Your task to perform on an android device: turn notification dots on Image 0: 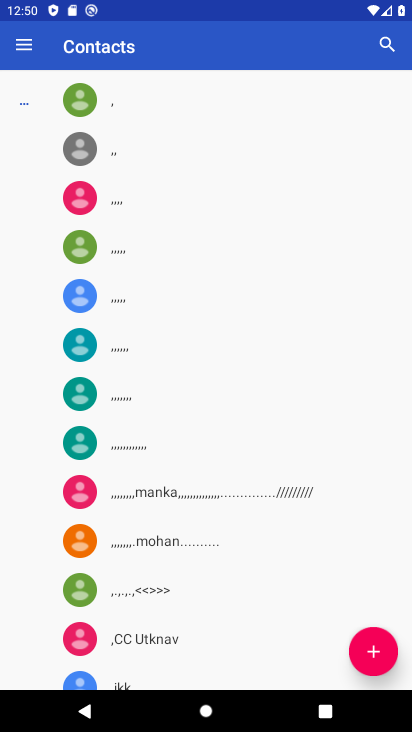
Step 0: press home button
Your task to perform on an android device: turn notification dots on Image 1: 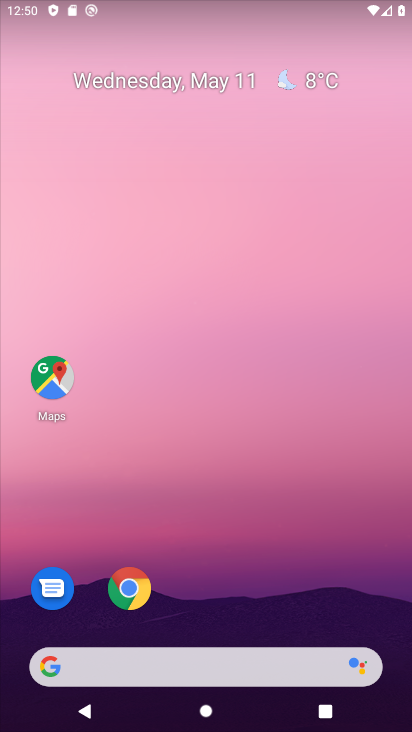
Step 1: drag from (248, 574) to (286, 223)
Your task to perform on an android device: turn notification dots on Image 2: 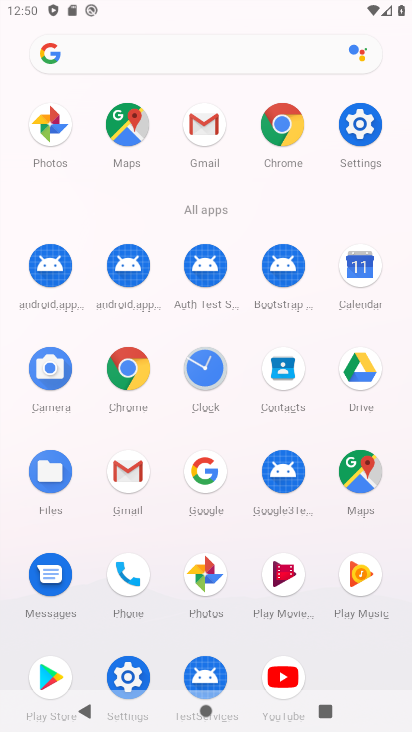
Step 2: click (358, 143)
Your task to perform on an android device: turn notification dots on Image 3: 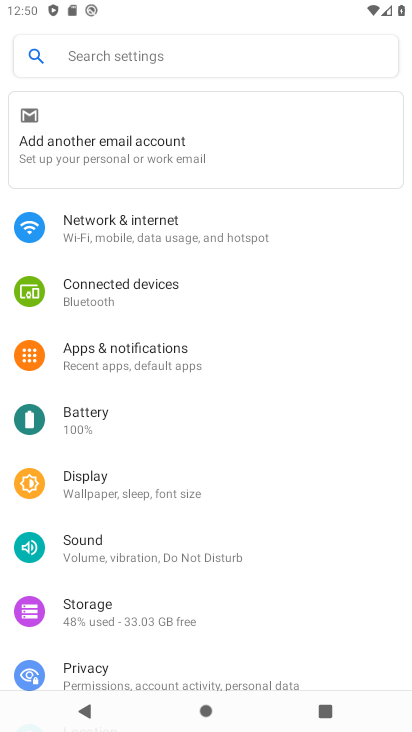
Step 3: click (270, 356)
Your task to perform on an android device: turn notification dots on Image 4: 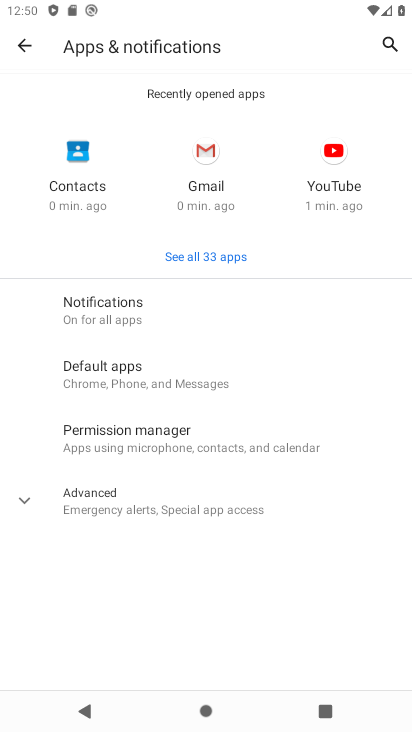
Step 4: click (177, 308)
Your task to perform on an android device: turn notification dots on Image 5: 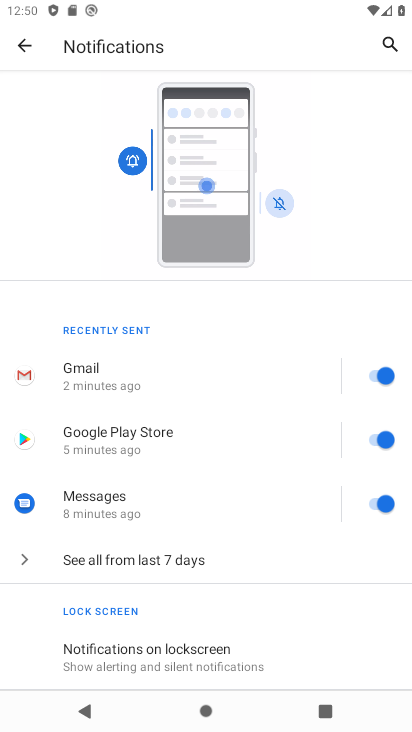
Step 5: drag from (197, 655) to (252, 241)
Your task to perform on an android device: turn notification dots on Image 6: 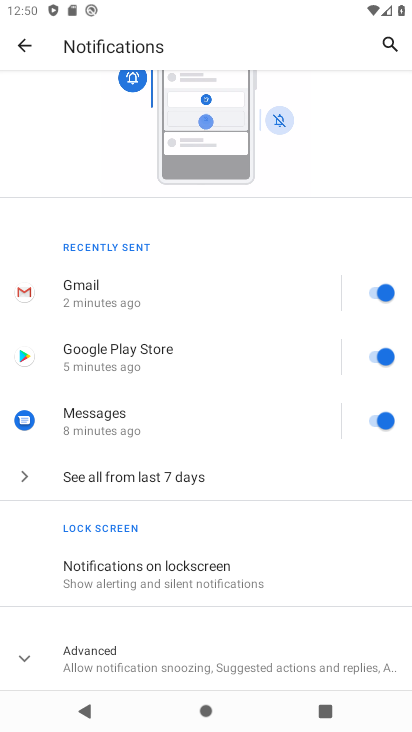
Step 6: click (25, 659)
Your task to perform on an android device: turn notification dots on Image 7: 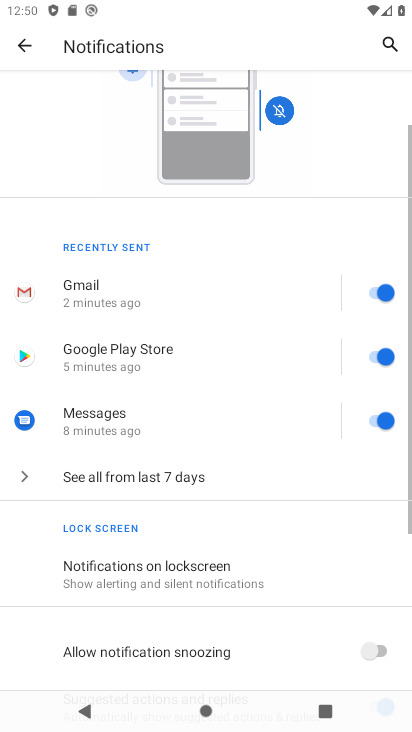
Step 7: drag from (189, 634) to (254, 290)
Your task to perform on an android device: turn notification dots on Image 8: 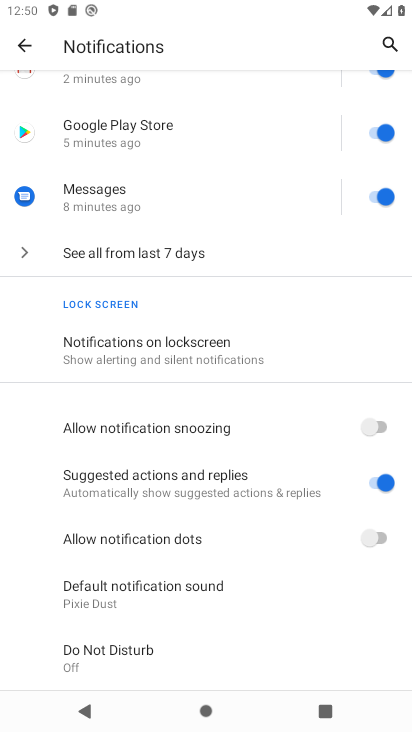
Step 8: click (381, 539)
Your task to perform on an android device: turn notification dots on Image 9: 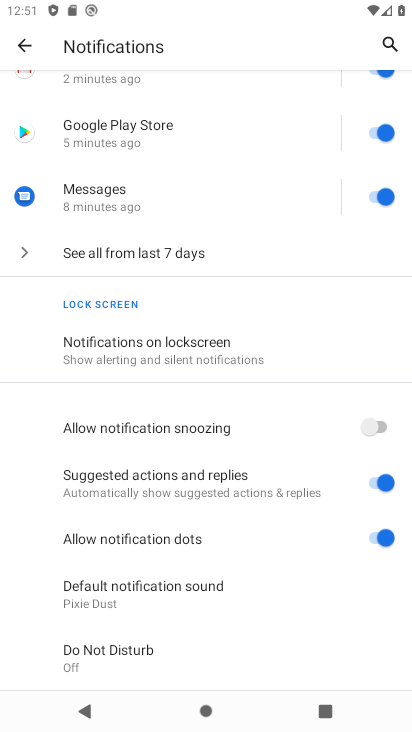
Step 9: task complete